Your task to perform on an android device: Is it going to rain today? Image 0: 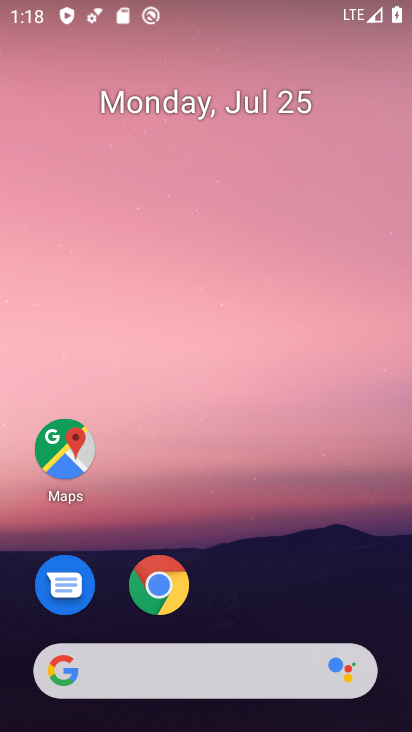
Step 0: drag from (278, 635) to (224, 40)
Your task to perform on an android device: Is it going to rain today? Image 1: 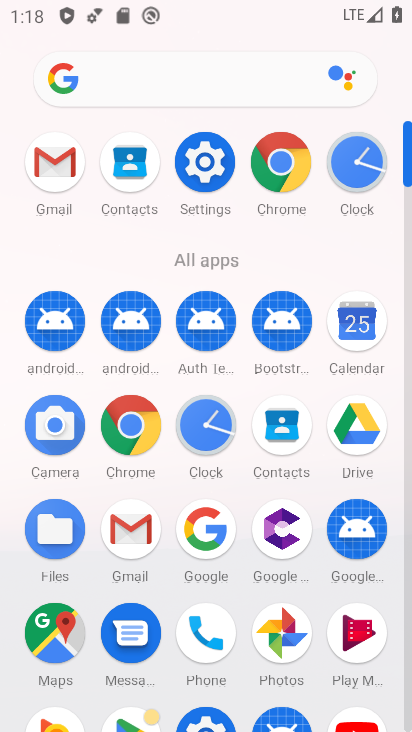
Step 1: click (129, 427)
Your task to perform on an android device: Is it going to rain today? Image 2: 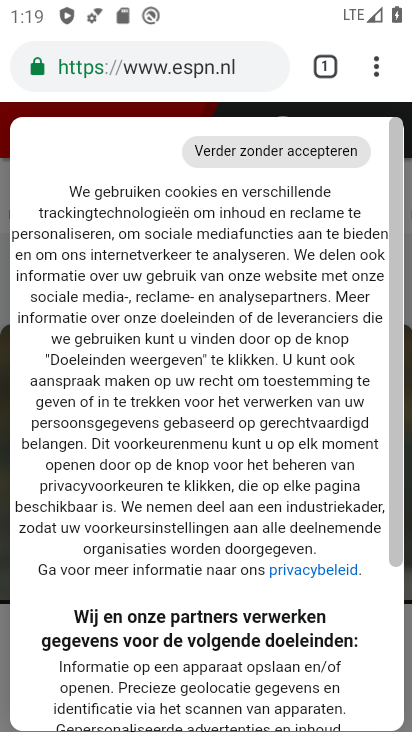
Step 2: click (192, 74)
Your task to perform on an android device: Is it going to rain today? Image 3: 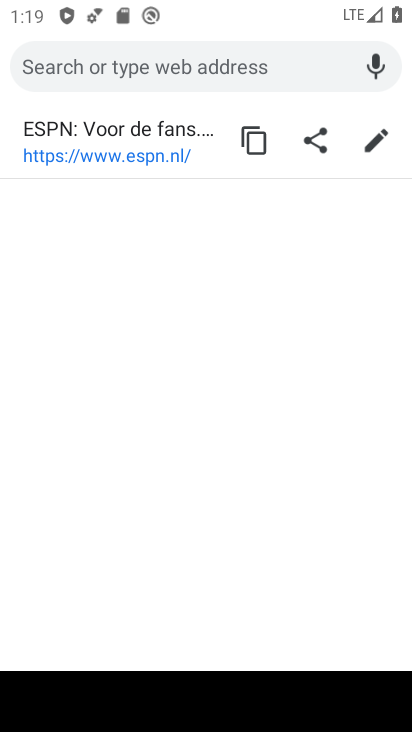
Step 3: type "wether today"
Your task to perform on an android device: Is it going to rain today? Image 4: 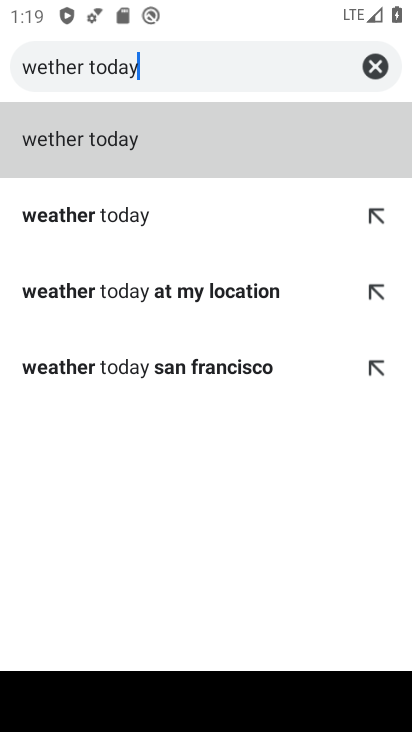
Step 4: click (206, 209)
Your task to perform on an android device: Is it going to rain today? Image 5: 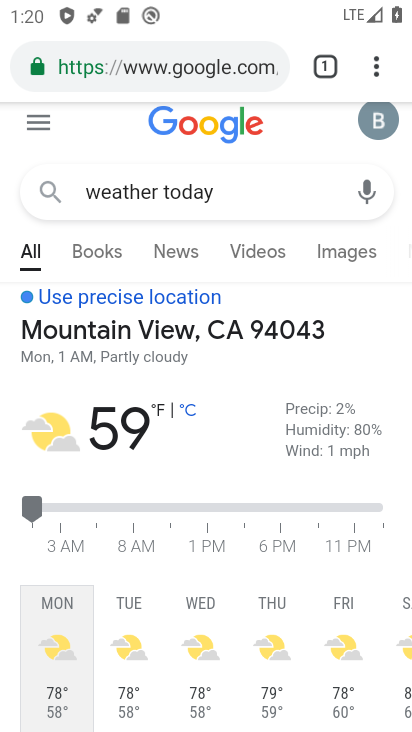
Step 5: task complete